Your task to perform on an android device: What's on my calendar today? Image 0: 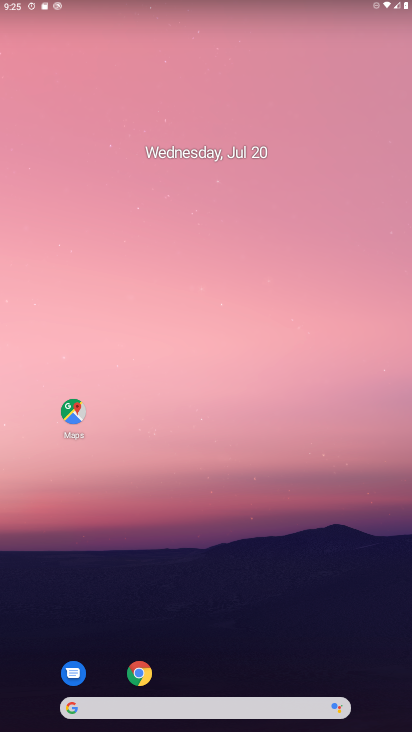
Step 0: drag from (362, 665) to (184, 56)
Your task to perform on an android device: What's on my calendar today? Image 1: 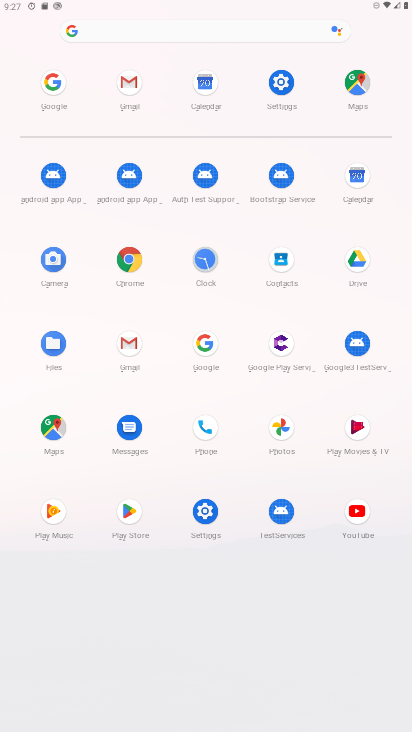
Step 1: click (361, 170)
Your task to perform on an android device: What's on my calendar today? Image 2: 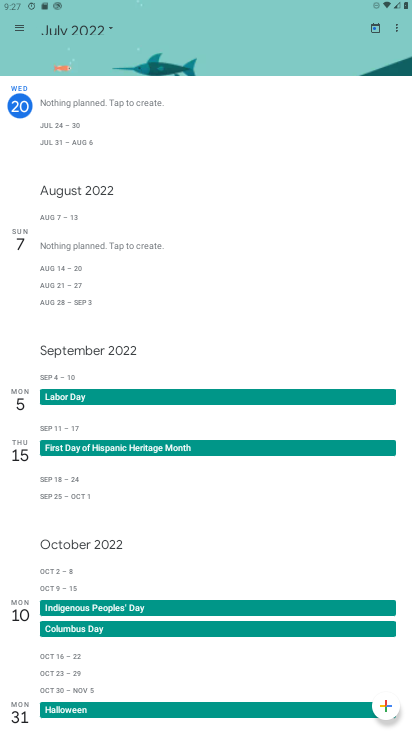
Step 2: task complete